Your task to perform on an android device: turn pop-ups on in chrome Image 0: 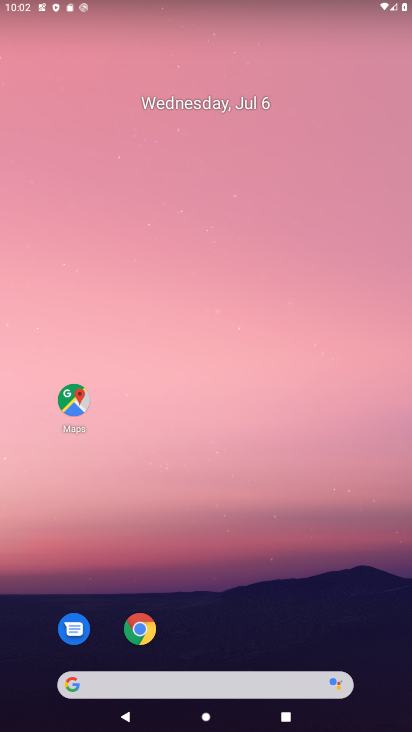
Step 0: drag from (210, 626) to (204, 148)
Your task to perform on an android device: turn pop-ups on in chrome Image 1: 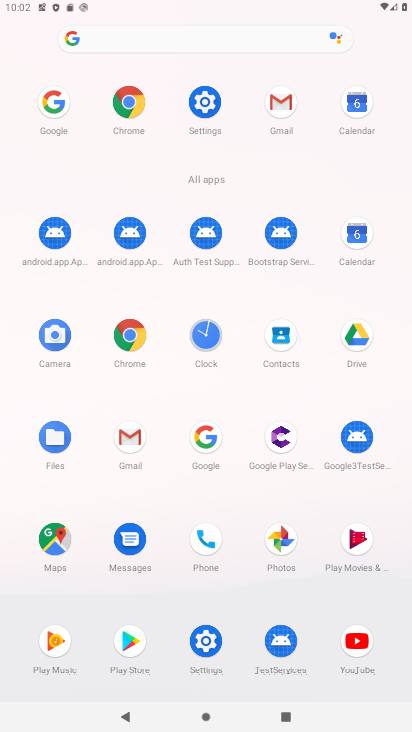
Step 1: click (129, 100)
Your task to perform on an android device: turn pop-ups on in chrome Image 2: 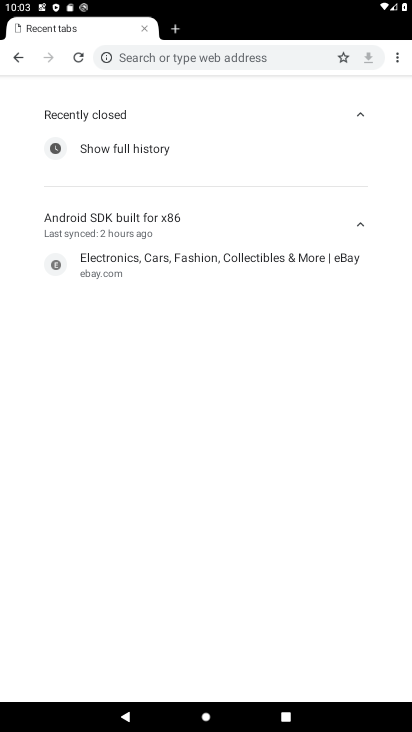
Step 2: click (393, 57)
Your task to perform on an android device: turn pop-ups on in chrome Image 3: 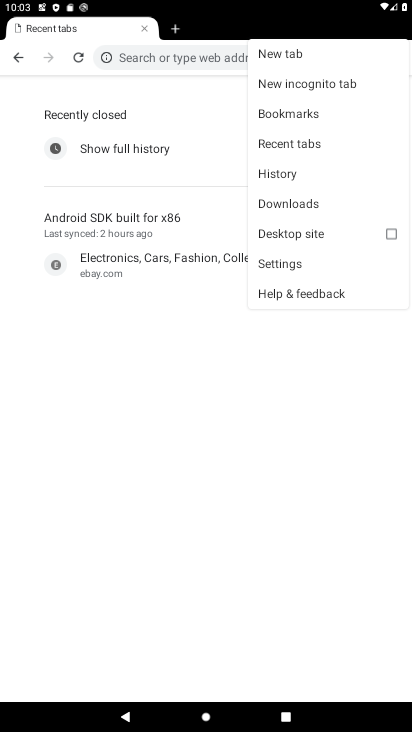
Step 3: click (289, 261)
Your task to perform on an android device: turn pop-ups on in chrome Image 4: 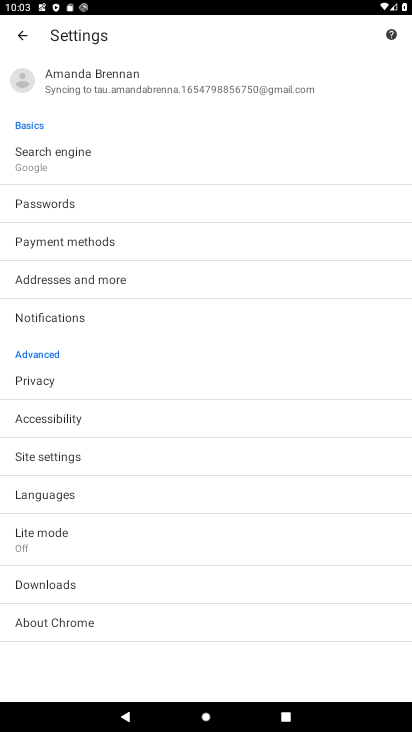
Step 4: click (32, 455)
Your task to perform on an android device: turn pop-ups on in chrome Image 5: 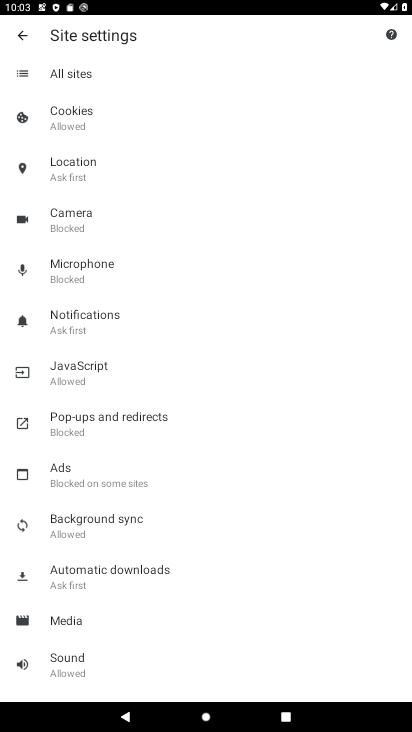
Step 5: click (108, 418)
Your task to perform on an android device: turn pop-ups on in chrome Image 6: 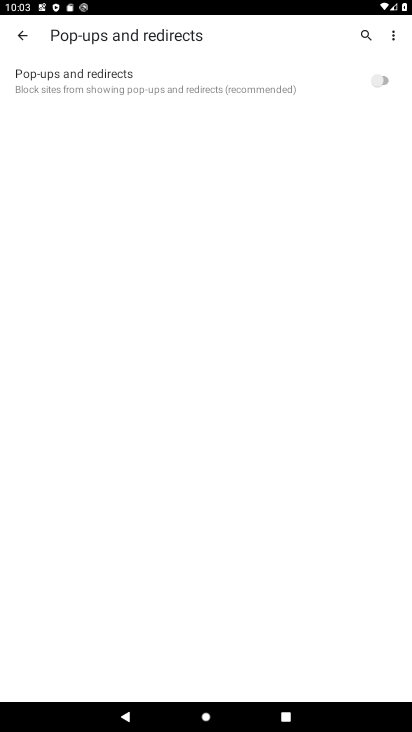
Step 6: click (378, 80)
Your task to perform on an android device: turn pop-ups on in chrome Image 7: 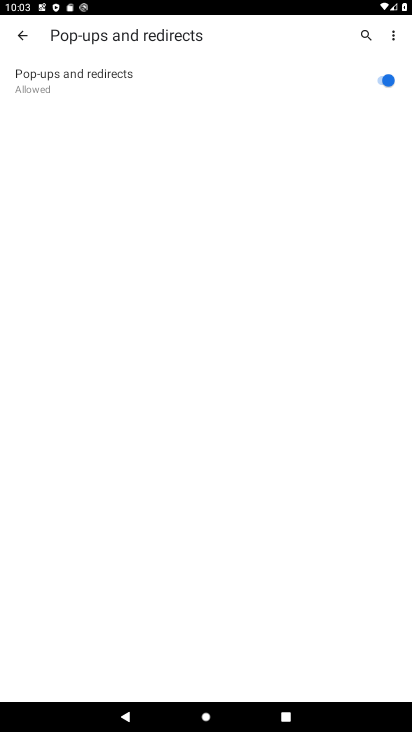
Step 7: task complete